Your task to perform on an android device: see sites visited before in the chrome app Image 0: 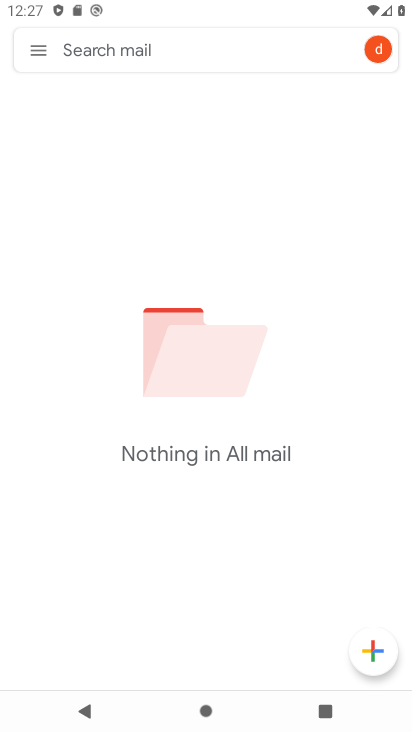
Step 0: press home button
Your task to perform on an android device: see sites visited before in the chrome app Image 1: 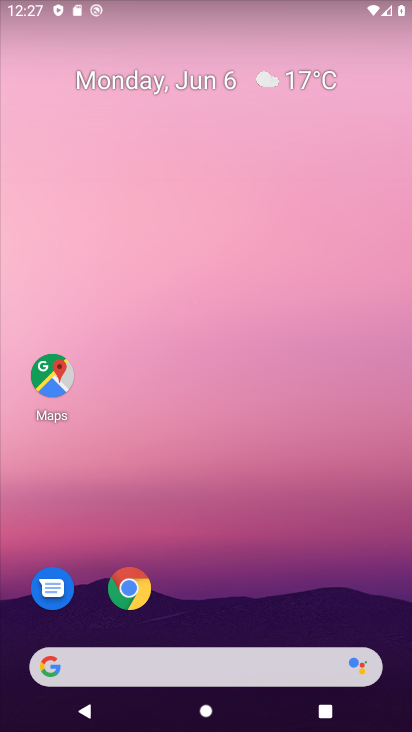
Step 1: click (129, 583)
Your task to perform on an android device: see sites visited before in the chrome app Image 2: 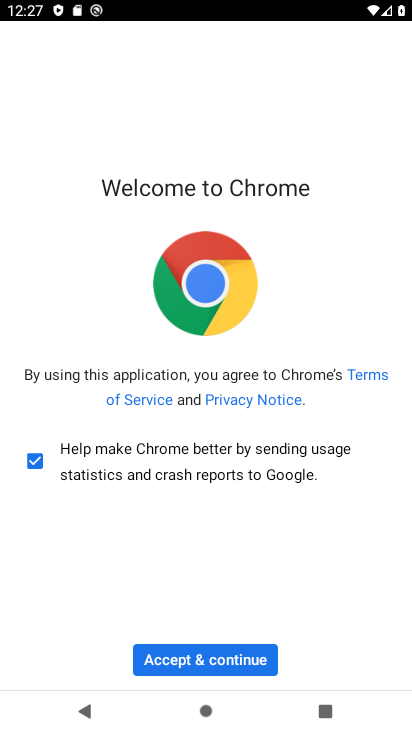
Step 2: click (196, 654)
Your task to perform on an android device: see sites visited before in the chrome app Image 3: 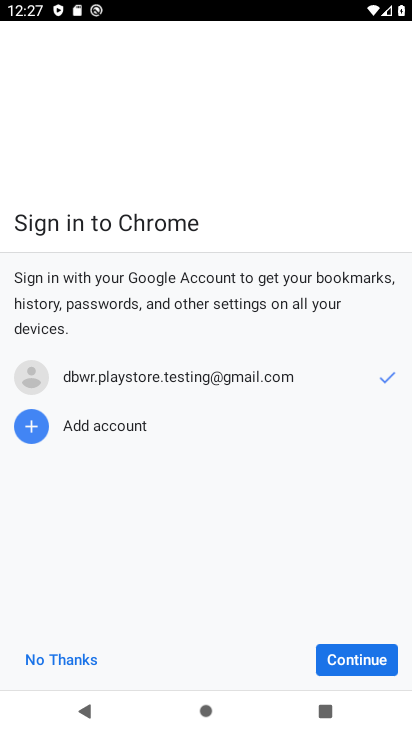
Step 3: click (397, 664)
Your task to perform on an android device: see sites visited before in the chrome app Image 4: 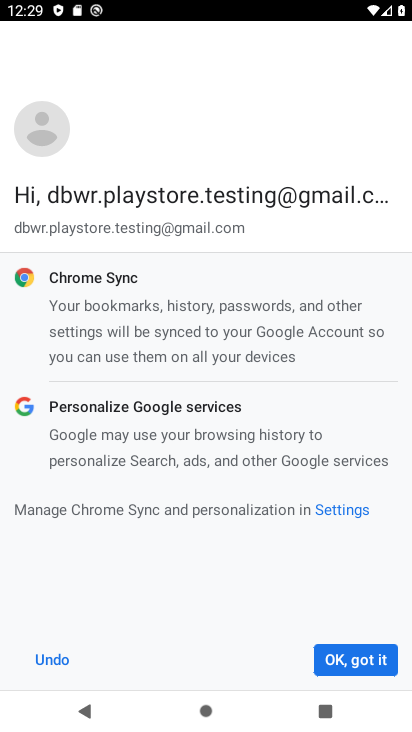
Step 4: click (378, 658)
Your task to perform on an android device: see sites visited before in the chrome app Image 5: 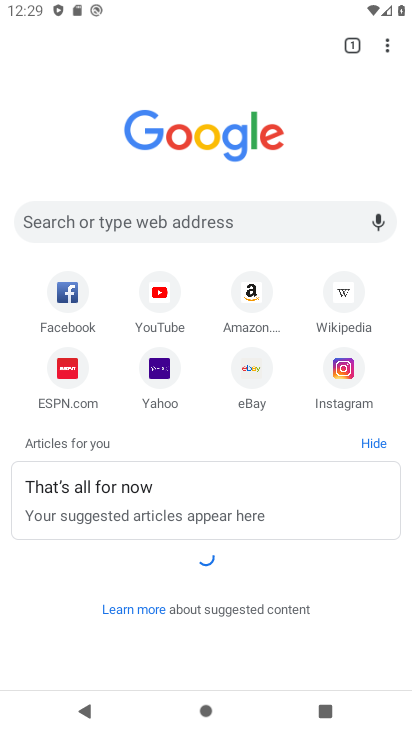
Step 5: task complete